Your task to perform on an android device: Open privacy settings Image 0: 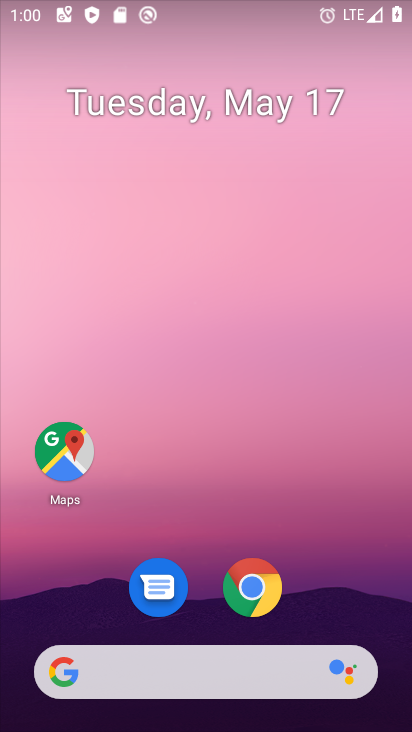
Step 0: drag from (367, 525) to (328, 29)
Your task to perform on an android device: Open privacy settings Image 1: 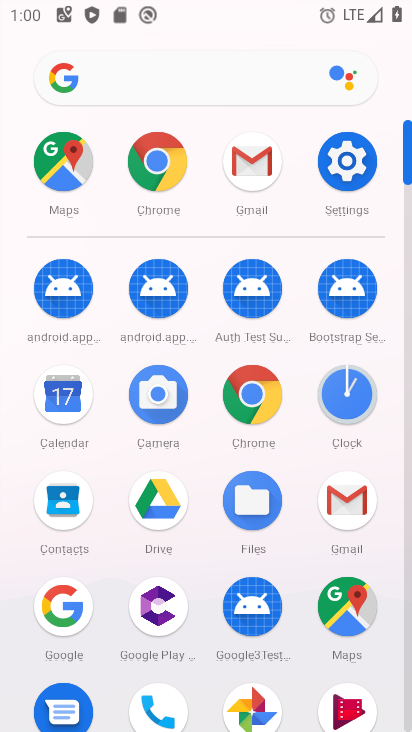
Step 1: click (345, 160)
Your task to perform on an android device: Open privacy settings Image 2: 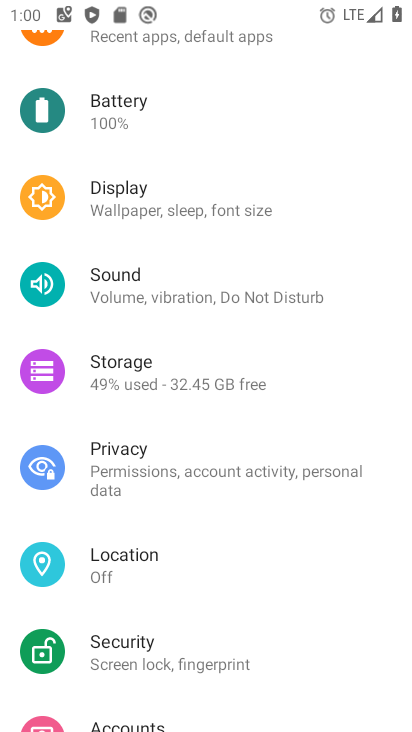
Step 2: drag from (108, 672) to (193, 218)
Your task to perform on an android device: Open privacy settings Image 3: 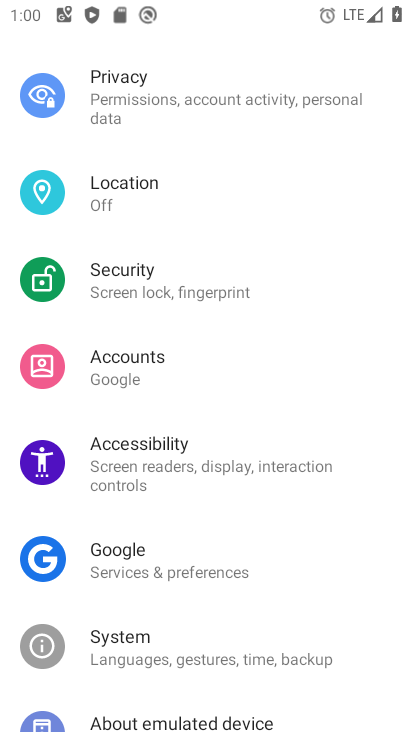
Step 3: drag from (116, 175) to (155, 621)
Your task to perform on an android device: Open privacy settings Image 4: 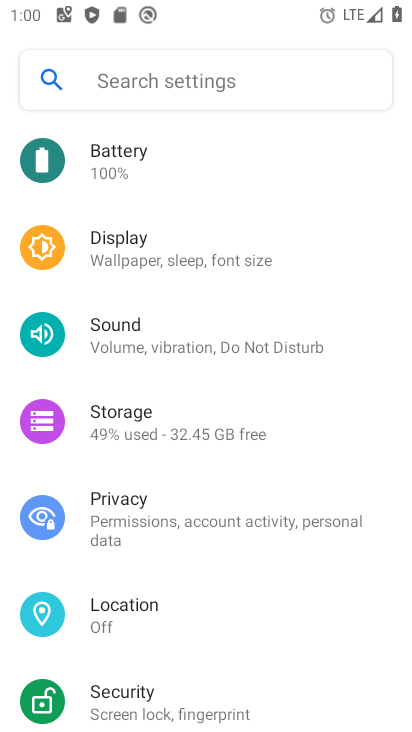
Step 4: click (123, 521)
Your task to perform on an android device: Open privacy settings Image 5: 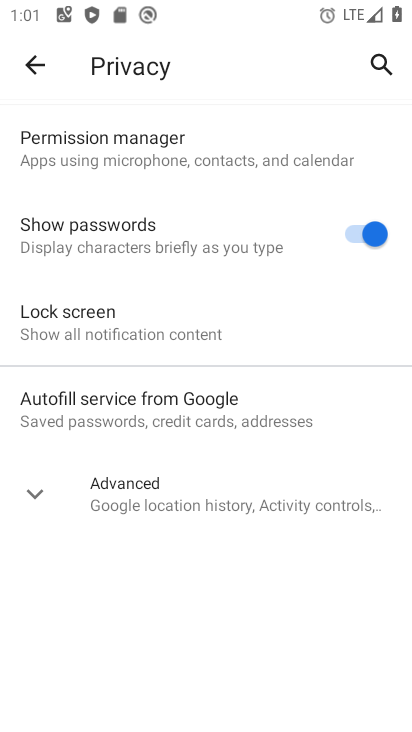
Step 5: task complete